Your task to perform on an android device: What's on my calendar today? Image 0: 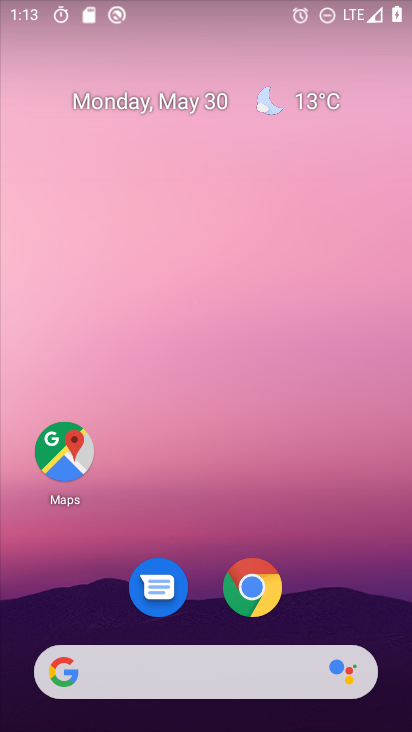
Step 0: drag from (335, 484) to (313, 0)
Your task to perform on an android device: What's on my calendar today? Image 1: 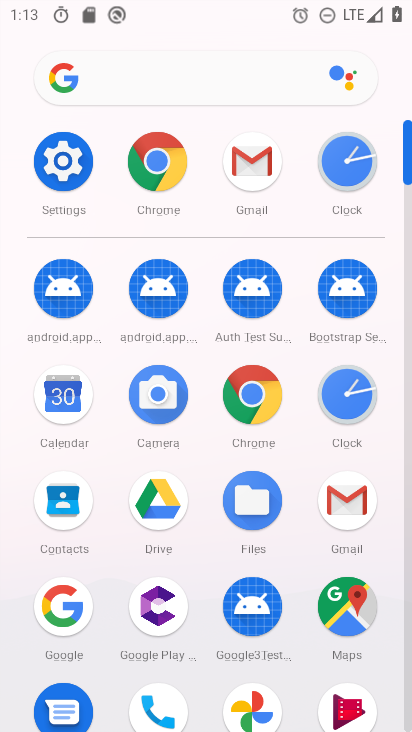
Step 1: click (60, 390)
Your task to perform on an android device: What's on my calendar today? Image 2: 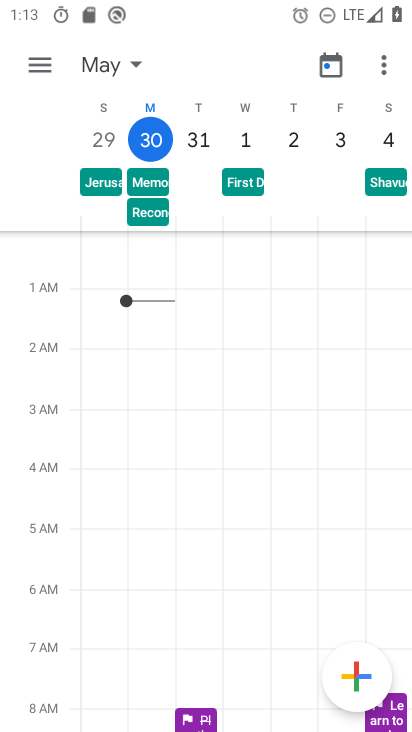
Step 2: task complete